Your task to perform on an android device: Clear the cart on target.com. Add asus rog to the cart on target.com, then select checkout. Image 0: 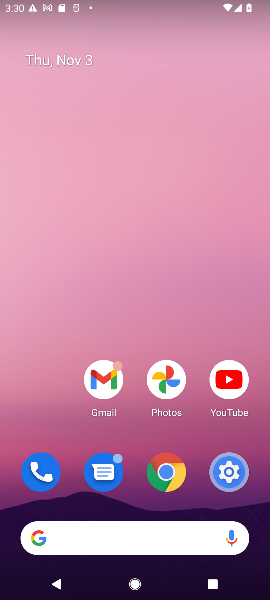
Step 0: click (137, 537)
Your task to perform on an android device: Clear the cart on target.com. Add asus rog to the cart on target.com, then select checkout. Image 1: 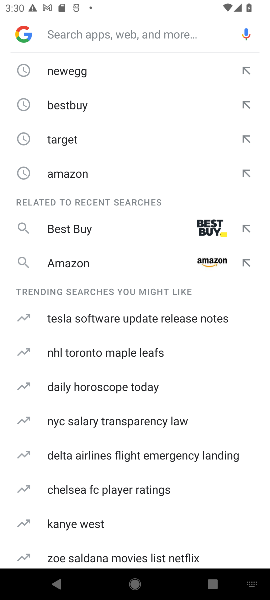
Step 1: type "target"
Your task to perform on an android device: Clear the cart on target.com. Add asus rog to the cart on target.com, then select checkout. Image 2: 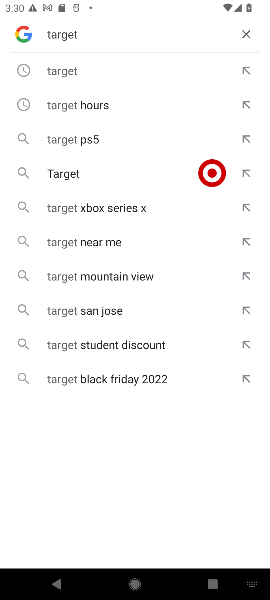
Step 2: click (56, 68)
Your task to perform on an android device: Clear the cart on target.com. Add asus rog to the cart on target.com, then select checkout. Image 3: 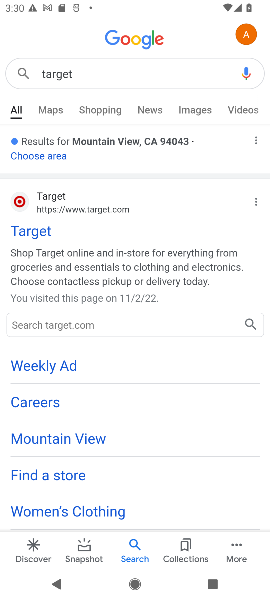
Step 3: click (40, 226)
Your task to perform on an android device: Clear the cart on target.com. Add asus rog to the cart on target.com, then select checkout. Image 4: 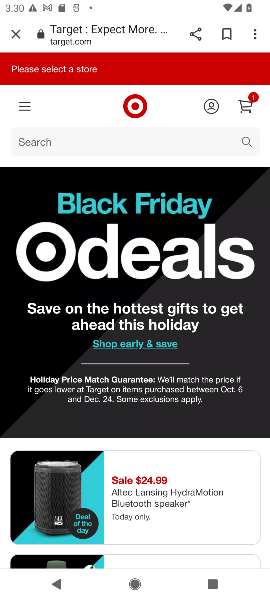
Step 4: click (158, 139)
Your task to perform on an android device: Clear the cart on target.com. Add asus rog to the cart on target.com, then select checkout. Image 5: 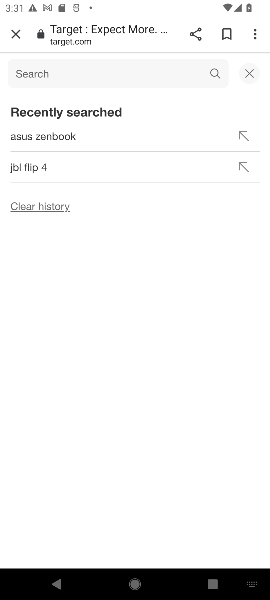
Step 5: type "asus rog"
Your task to perform on an android device: Clear the cart on target.com. Add asus rog to the cart on target.com, then select checkout. Image 6: 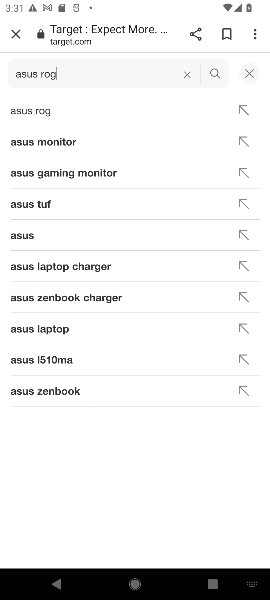
Step 6: click (217, 79)
Your task to perform on an android device: Clear the cart on target.com. Add asus rog to the cart on target.com, then select checkout. Image 7: 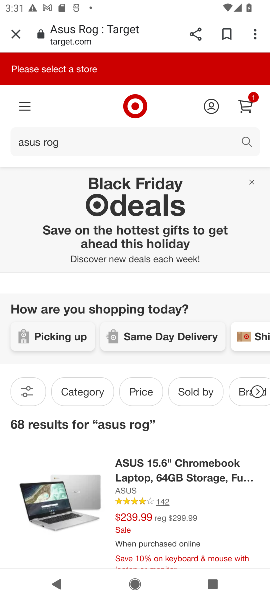
Step 7: drag from (153, 482) to (129, 120)
Your task to perform on an android device: Clear the cart on target.com. Add asus rog to the cart on target.com, then select checkout. Image 8: 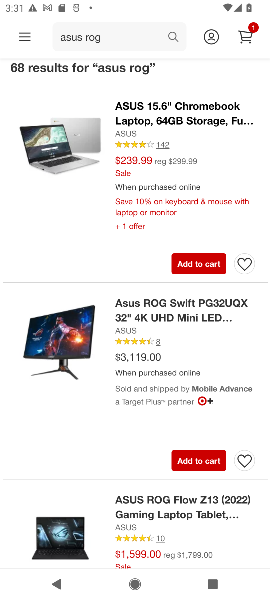
Step 8: click (189, 271)
Your task to perform on an android device: Clear the cart on target.com. Add asus rog to the cart on target.com, then select checkout. Image 9: 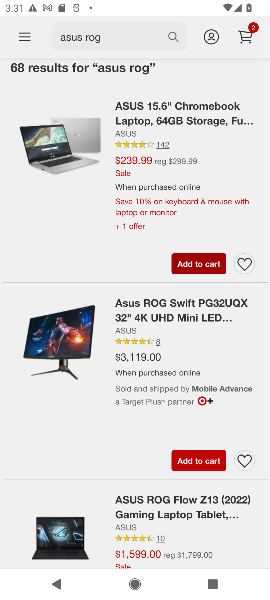
Step 9: task complete